Your task to perform on an android device: Open settings on Google Maps Image 0: 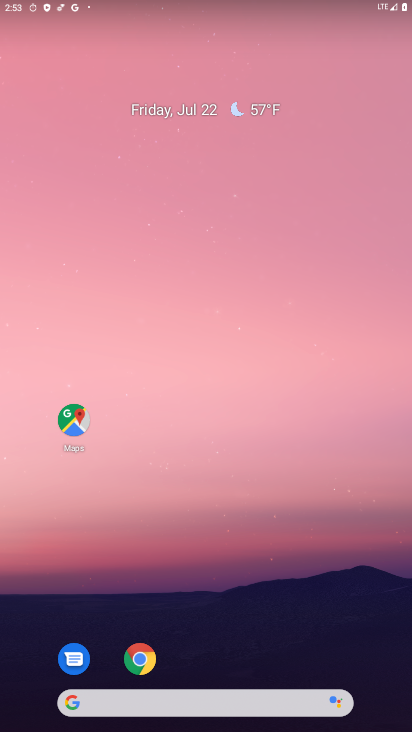
Step 0: click (68, 432)
Your task to perform on an android device: Open settings on Google Maps Image 1: 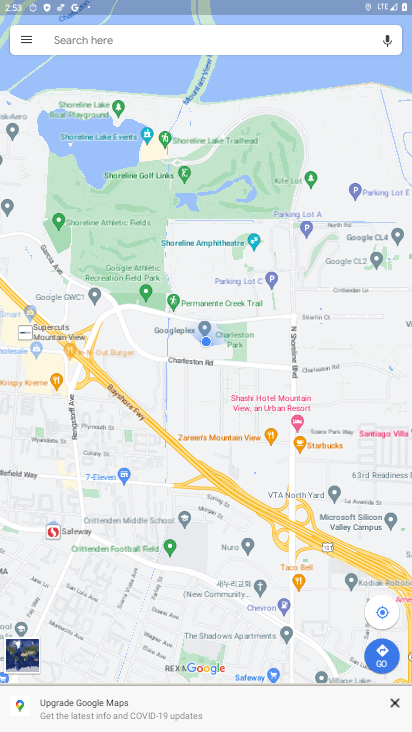
Step 1: click (30, 40)
Your task to perform on an android device: Open settings on Google Maps Image 2: 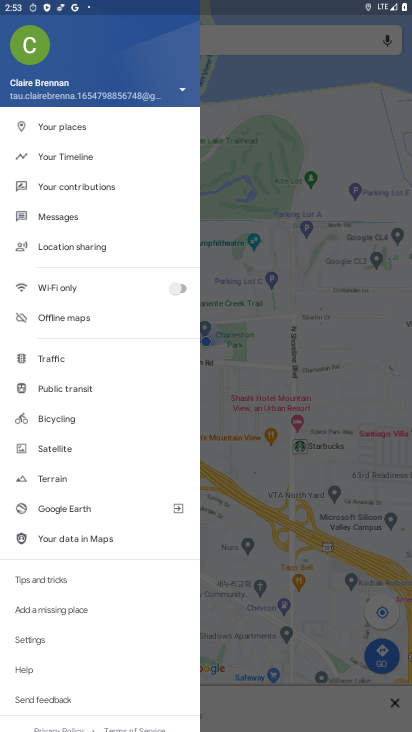
Step 2: click (37, 645)
Your task to perform on an android device: Open settings on Google Maps Image 3: 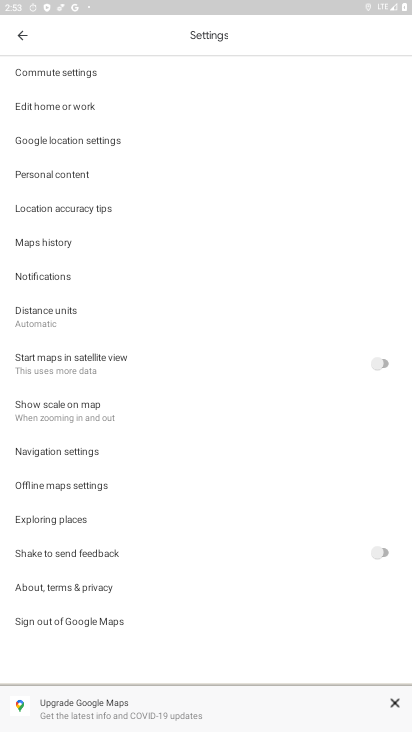
Step 3: task complete